Your task to perform on an android device: toggle data saver in the chrome app Image 0: 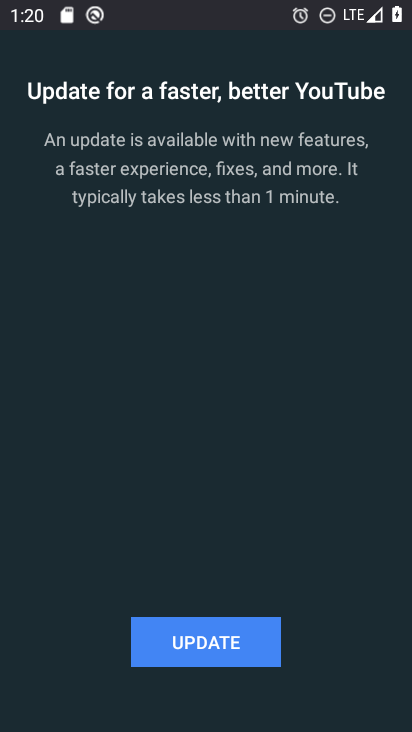
Step 0: press home button
Your task to perform on an android device: toggle data saver in the chrome app Image 1: 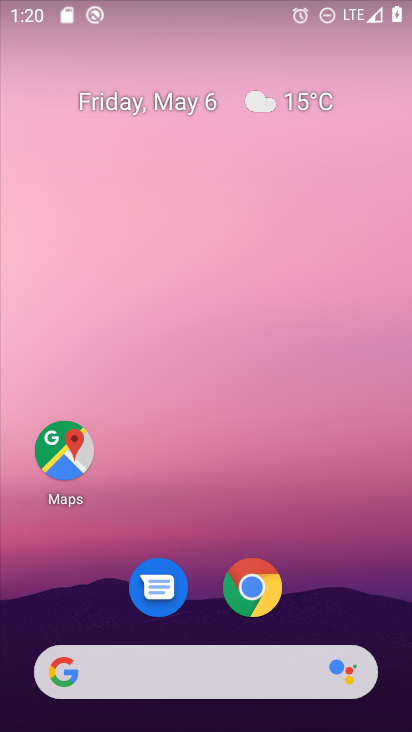
Step 1: click (252, 589)
Your task to perform on an android device: toggle data saver in the chrome app Image 2: 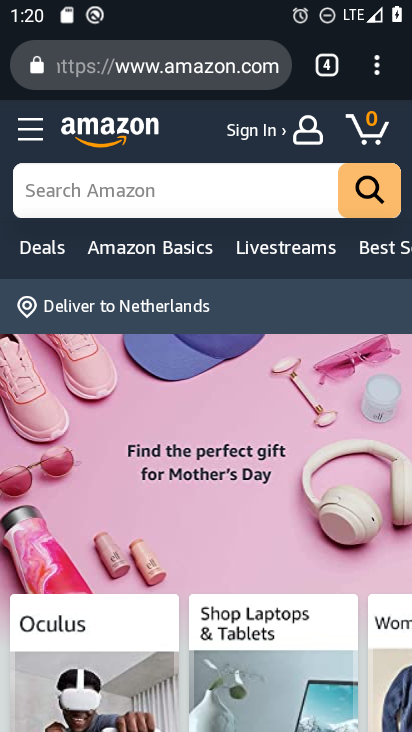
Step 2: click (379, 64)
Your task to perform on an android device: toggle data saver in the chrome app Image 3: 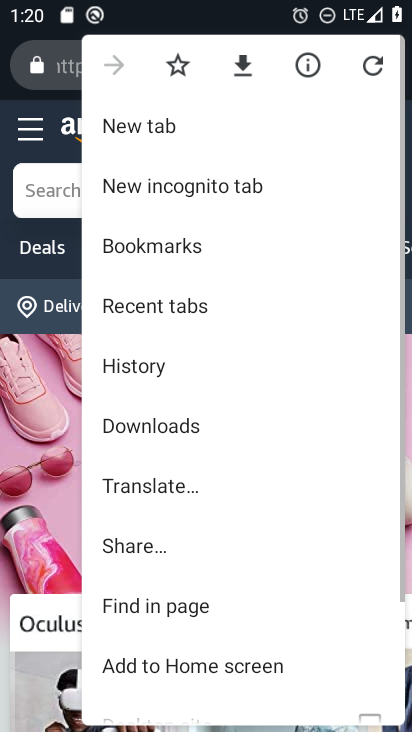
Step 3: drag from (258, 610) to (269, 162)
Your task to perform on an android device: toggle data saver in the chrome app Image 4: 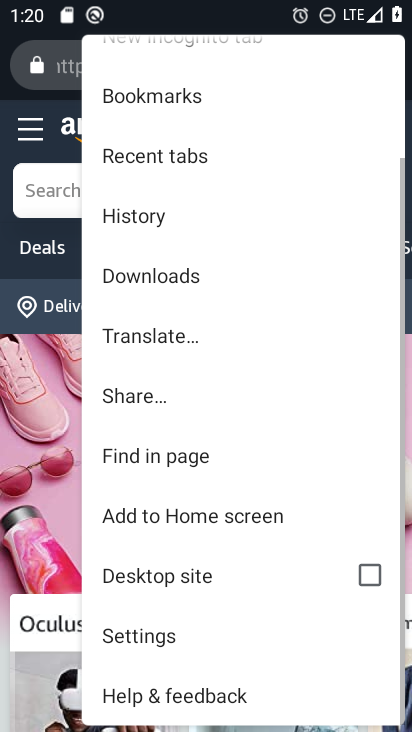
Step 4: click (180, 629)
Your task to perform on an android device: toggle data saver in the chrome app Image 5: 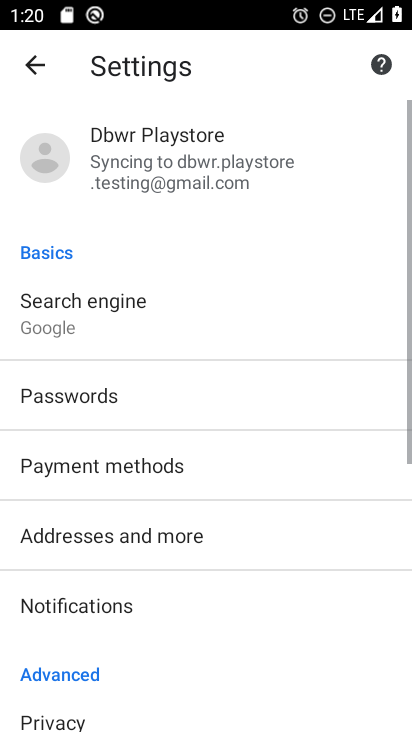
Step 5: drag from (235, 626) to (264, 97)
Your task to perform on an android device: toggle data saver in the chrome app Image 6: 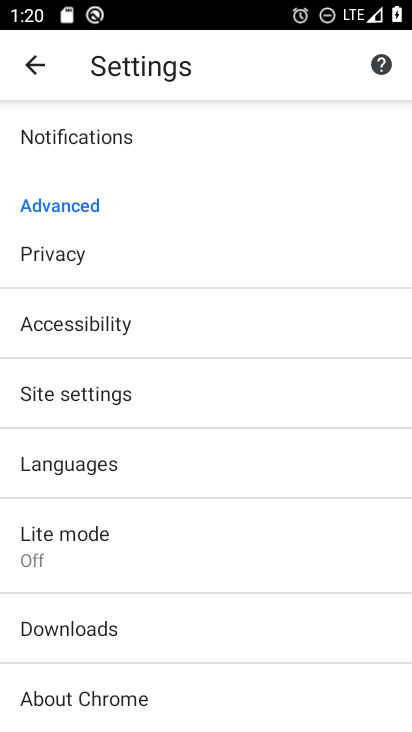
Step 6: click (122, 557)
Your task to perform on an android device: toggle data saver in the chrome app Image 7: 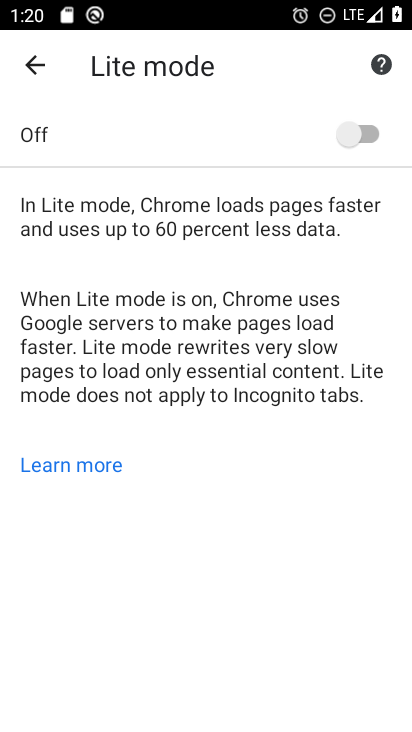
Step 7: click (371, 125)
Your task to perform on an android device: toggle data saver in the chrome app Image 8: 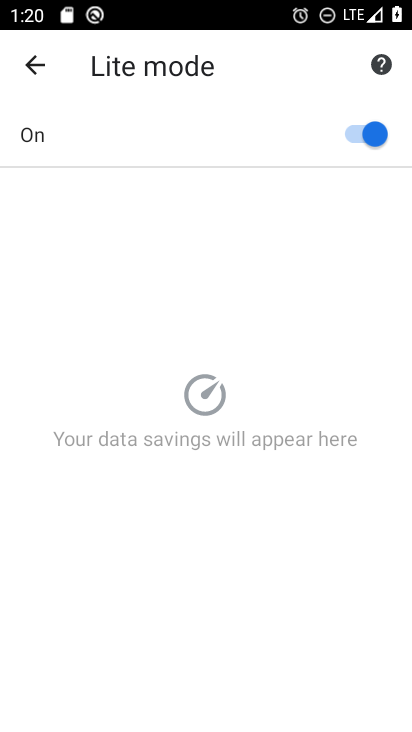
Step 8: task complete